Your task to perform on an android device: Go to Reddit.com Image 0: 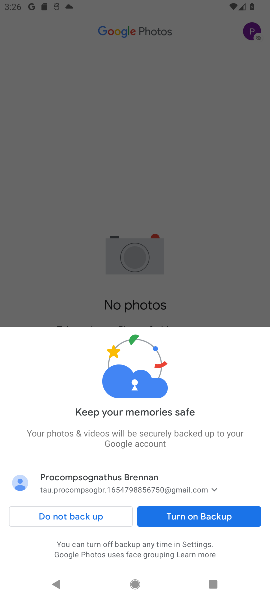
Step 0: press back button
Your task to perform on an android device: Go to Reddit.com Image 1: 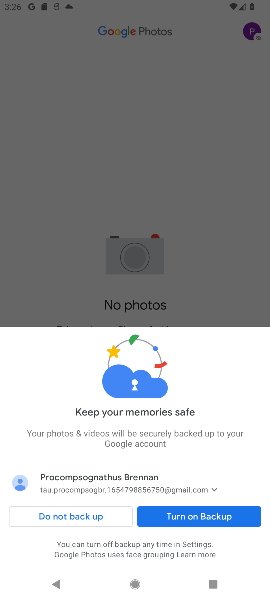
Step 1: press back button
Your task to perform on an android device: Go to Reddit.com Image 2: 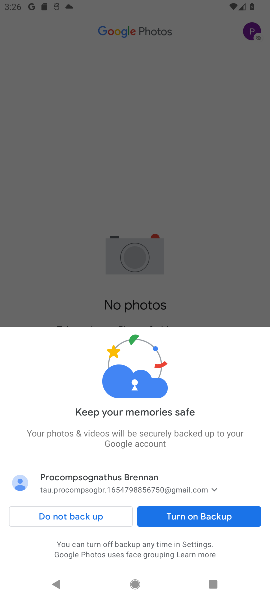
Step 2: press back button
Your task to perform on an android device: Go to Reddit.com Image 3: 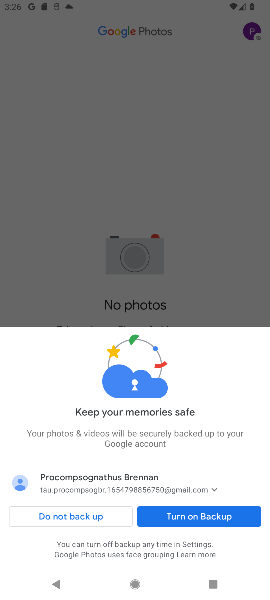
Step 3: press home button
Your task to perform on an android device: Go to Reddit.com Image 4: 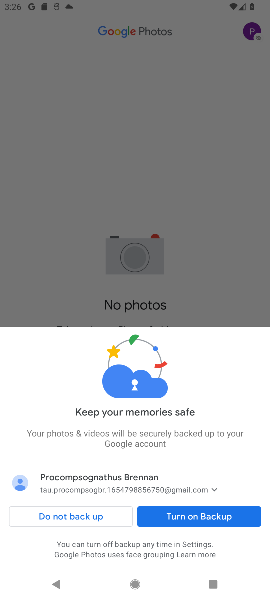
Step 4: click (200, 224)
Your task to perform on an android device: Go to Reddit.com Image 5: 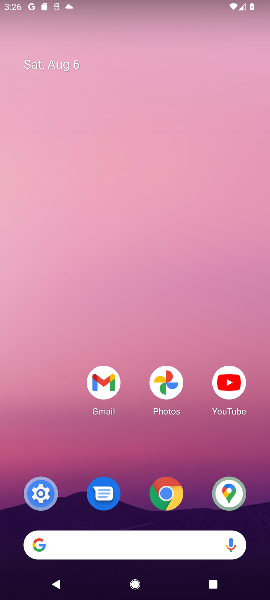
Step 5: drag from (188, 568) to (85, 193)
Your task to perform on an android device: Go to Reddit.com Image 6: 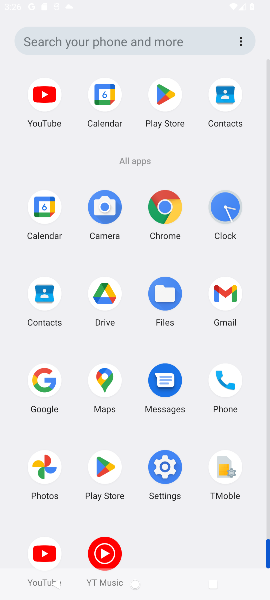
Step 6: drag from (158, 493) to (111, 164)
Your task to perform on an android device: Go to Reddit.com Image 7: 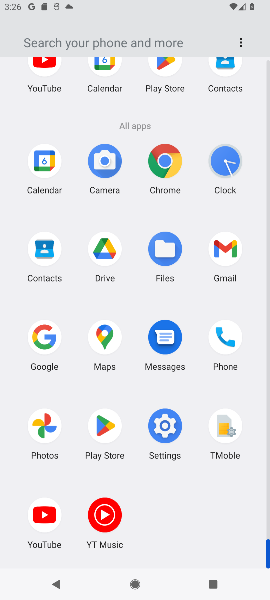
Step 7: drag from (178, 511) to (164, 238)
Your task to perform on an android device: Go to Reddit.com Image 8: 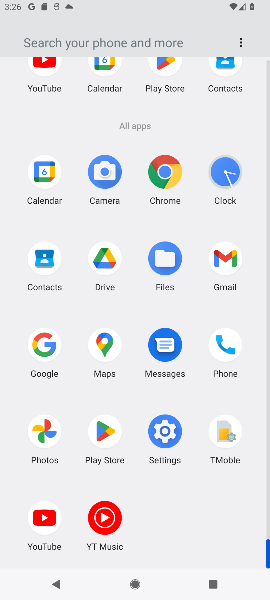
Step 8: click (160, 167)
Your task to perform on an android device: Go to Reddit.com Image 9: 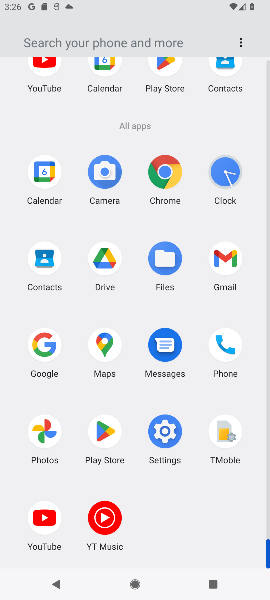
Step 9: click (160, 167)
Your task to perform on an android device: Go to Reddit.com Image 10: 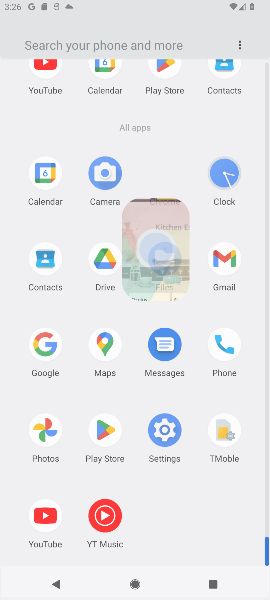
Step 10: click (163, 170)
Your task to perform on an android device: Go to Reddit.com Image 11: 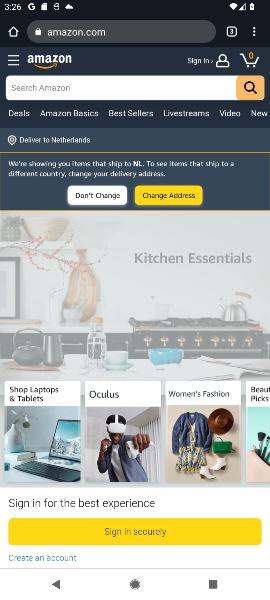
Step 11: click (165, 170)
Your task to perform on an android device: Go to Reddit.com Image 12: 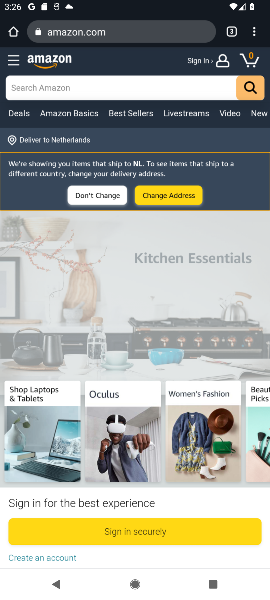
Step 12: click (165, 170)
Your task to perform on an android device: Go to Reddit.com Image 13: 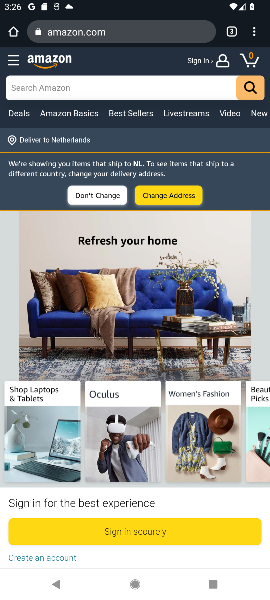
Step 13: drag from (251, 31) to (168, 105)
Your task to perform on an android device: Go to Reddit.com Image 14: 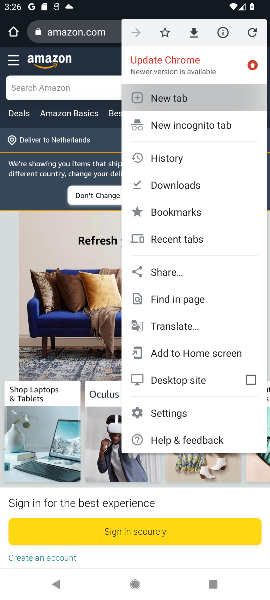
Step 14: click (168, 105)
Your task to perform on an android device: Go to Reddit.com Image 15: 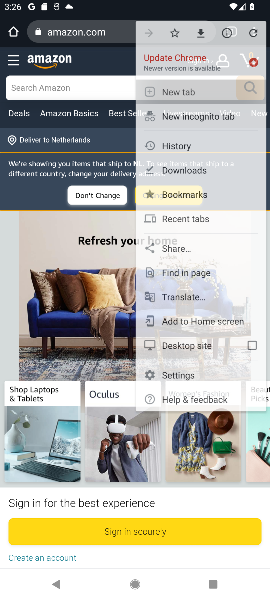
Step 15: click (168, 105)
Your task to perform on an android device: Go to Reddit.com Image 16: 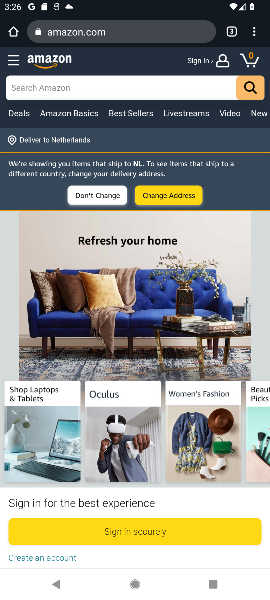
Step 16: click (168, 105)
Your task to perform on an android device: Go to Reddit.com Image 17: 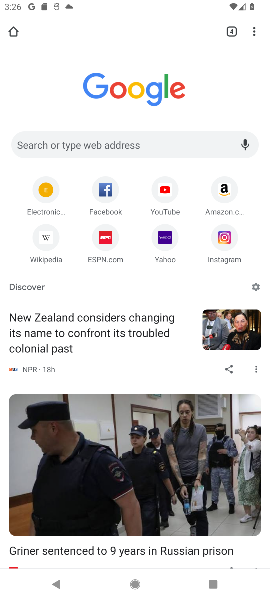
Step 17: click (44, 139)
Your task to perform on an android device: Go to Reddit.com Image 18: 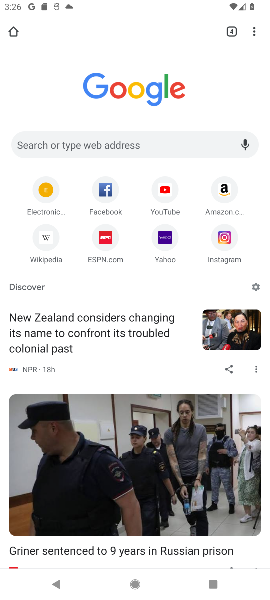
Step 18: click (44, 139)
Your task to perform on an android device: Go to Reddit.com Image 19: 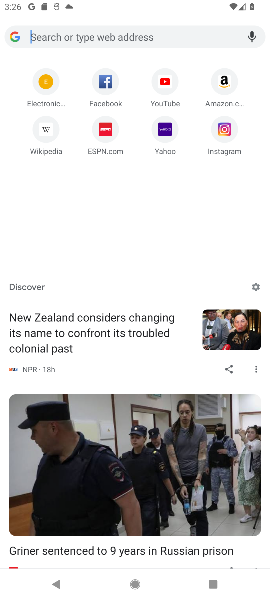
Step 19: click (44, 139)
Your task to perform on an android device: Go to Reddit.com Image 20: 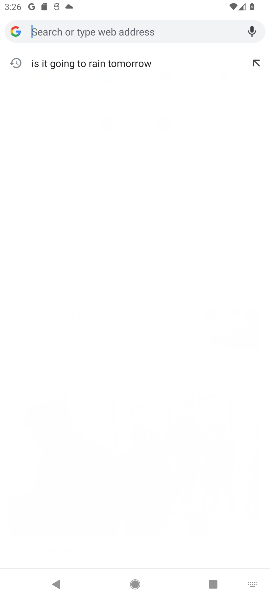
Step 20: click (46, 144)
Your task to perform on an android device: Go to Reddit.com Image 21: 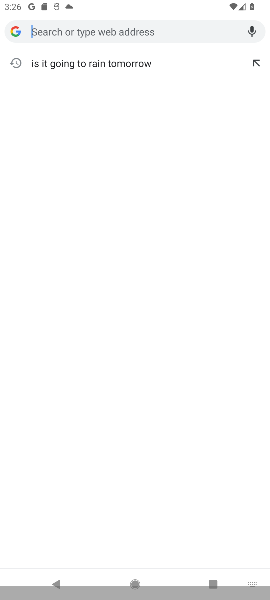
Step 21: click (46, 144)
Your task to perform on an android device: Go to Reddit.com Image 22: 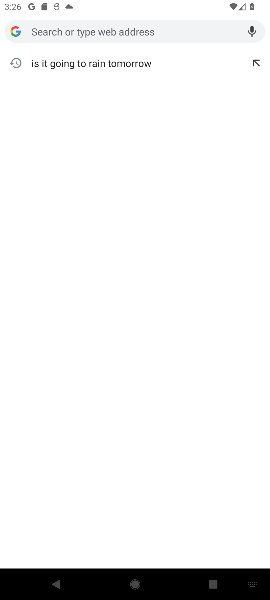
Step 22: type "reddit.com"
Your task to perform on an android device: Go to Reddit.com Image 23: 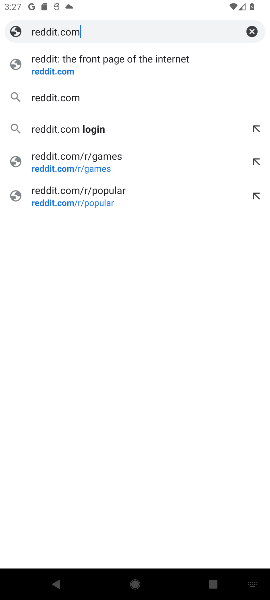
Step 23: click (42, 99)
Your task to perform on an android device: Go to Reddit.com Image 24: 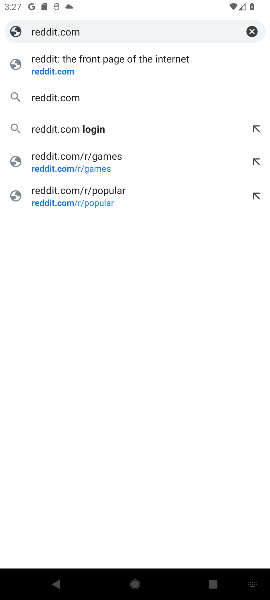
Step 24: click (42, 98)
Your task to perform on an android device: Go to Reddit.com Image 25: 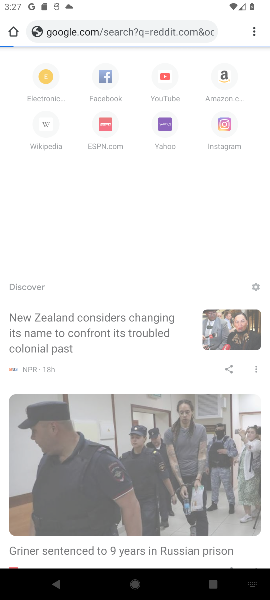
Step 25: click (44, 97)
Your task to perform on an android device: Go to Reddit.com Image 26: 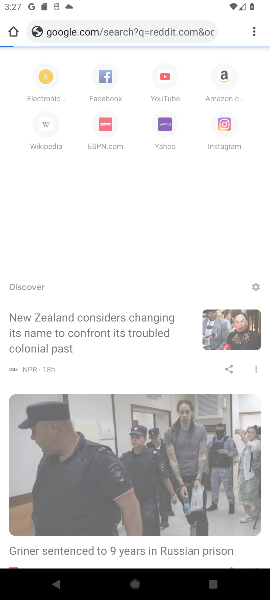
Step 26: click (44, 97)
Your task to perform on an android device: Go to Reddit.com Image 27: 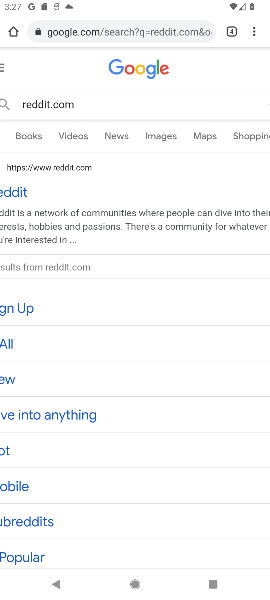
Step 27: task complete